Your task to perform on an android device: turn on showing notifications on the lock screen Image 0: 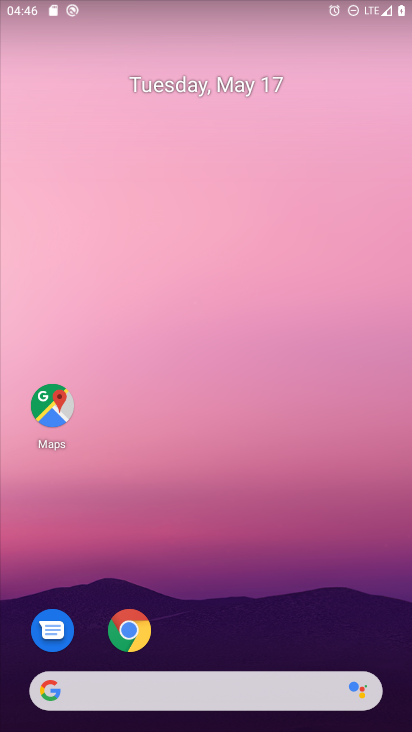
Step 0: drag from (213, 559) to (304, 51)
Your task to perform on an android device: turn on showing notifications on the lock screen Image 1: 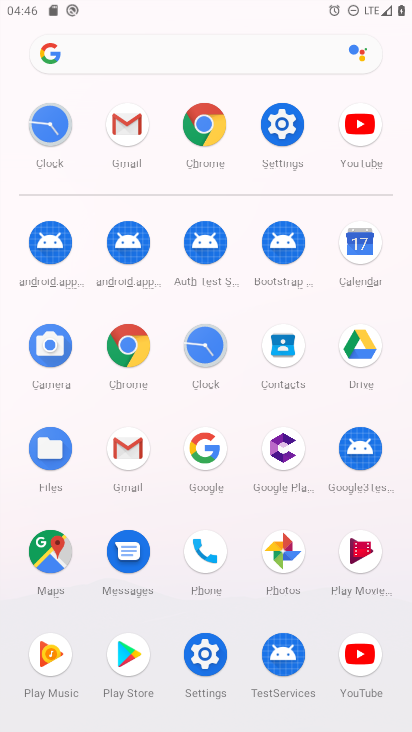
Step 1: click (265, 119)
Your task to perform on an android device: turn on showing notifications on the lock screen Image 2: 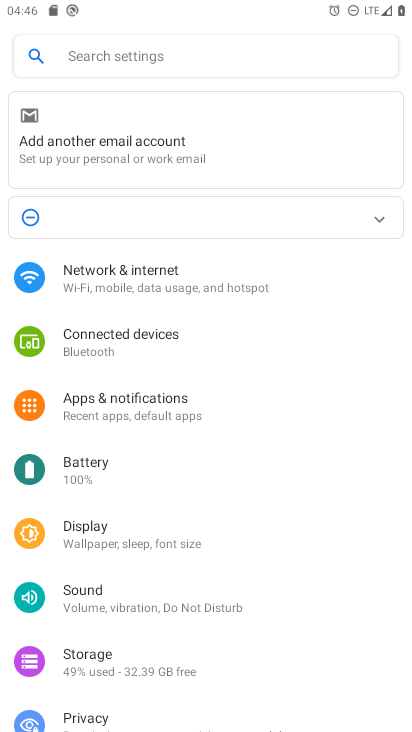
Step 2: click (128, 396)
Your task to perform on an android device: turn on showing notifications on the lock screen Image 3: 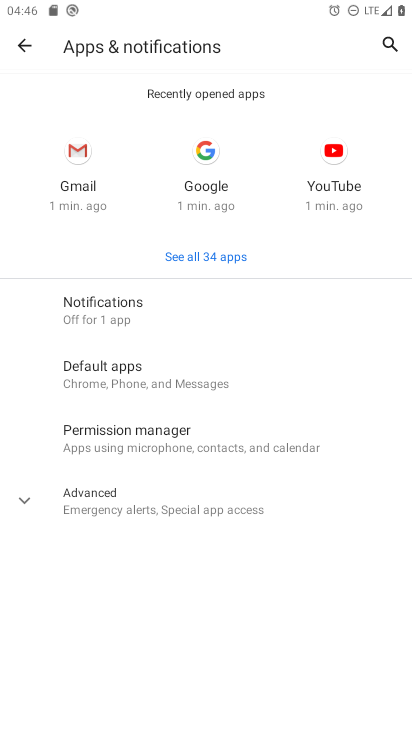
Step 3: click (152, 304)
Your task to perform on an android device: turn on showing notifications on the lock screen Image 4: 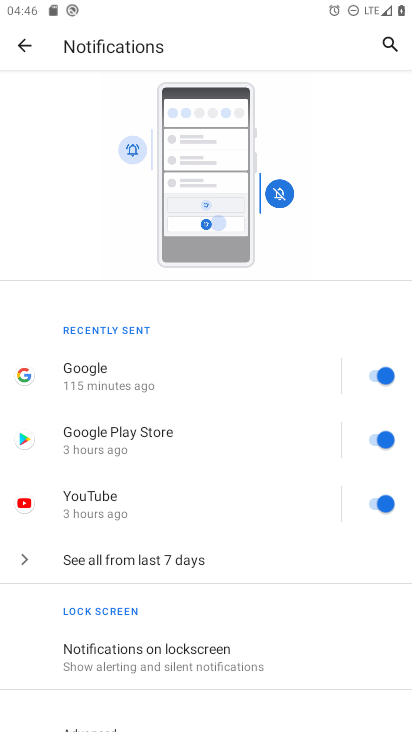
Step 4: click (185, 649)
Your task to perform on an android device: turn on showing notifications on the lock screen Image 5: 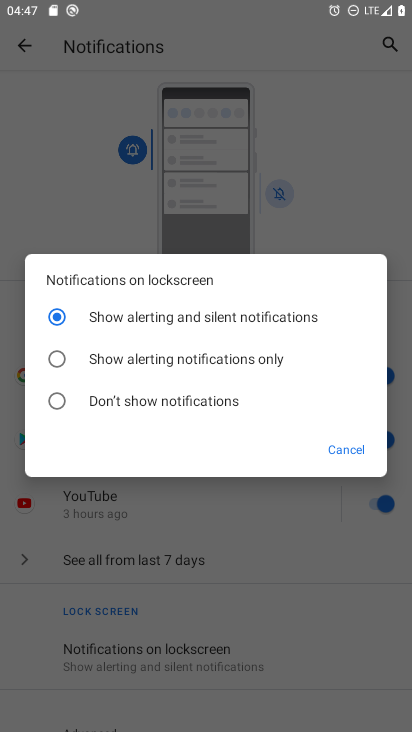
Step 5: click (89, 319)
Your task to perform on an android device: turn on showing notifications on the lock screen Image 6: 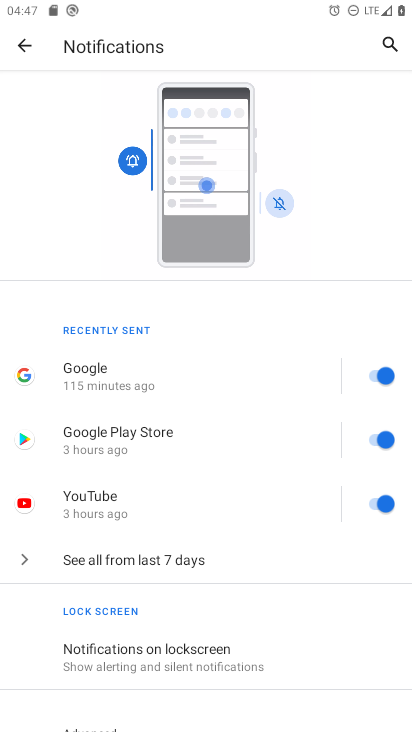
Step 6: task complete